Your task to perform on an android device: toggle javascript in the chrome app Image 0: 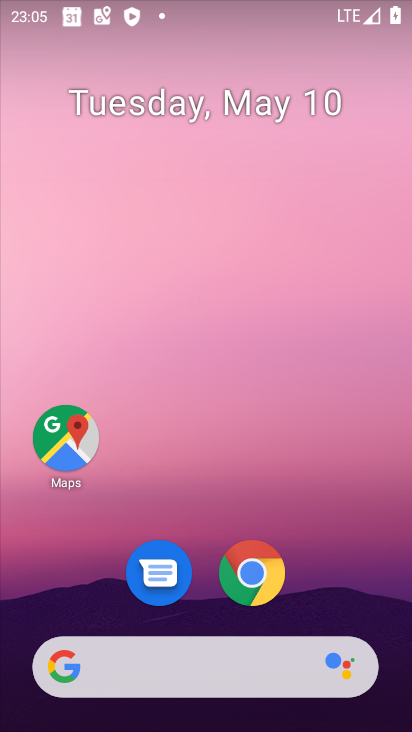
Step 0: click (252, 570)
Your task to perform on an android device: toggle javascript in the chrome app Image 1: 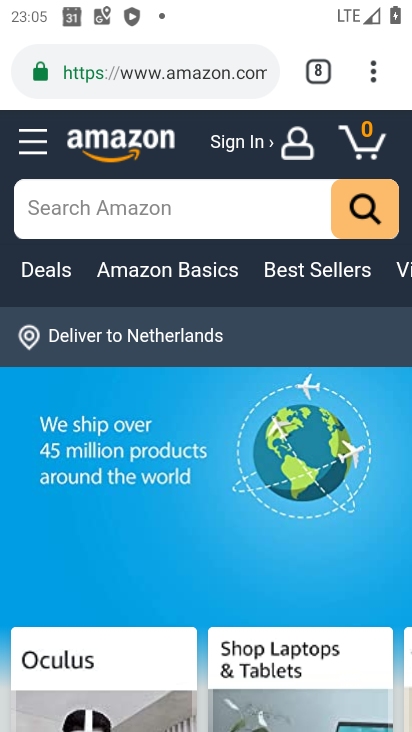
Step 1: click (372, 69)
Your task to perform on an android device: toggle javascript in the chrome app Image 2: 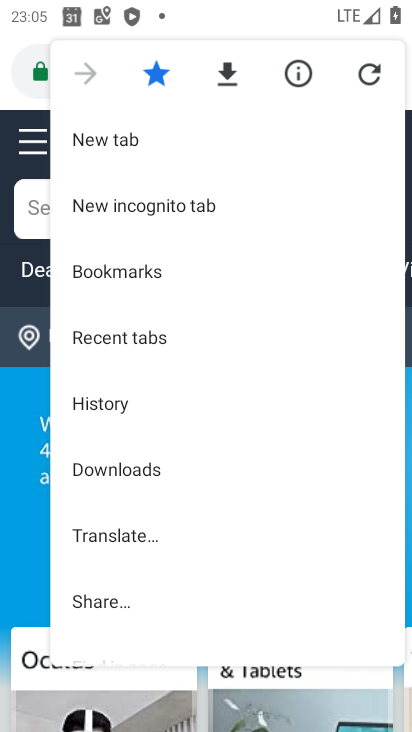
Step 2: drag from (220, 453) to (166, 112)
Your task to perform on an android device: toggle javascript in the chrome app Image 3: 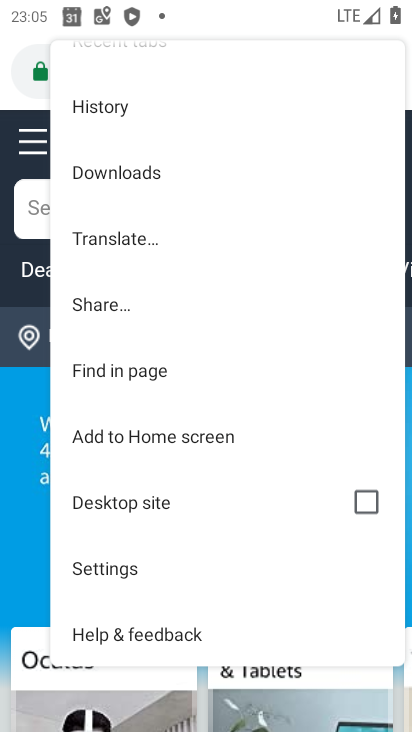
Step 3: drag from (194, 524) to (180, 142)
Your task to perform on an android device: toggle javascript in the chrome app Image 4: 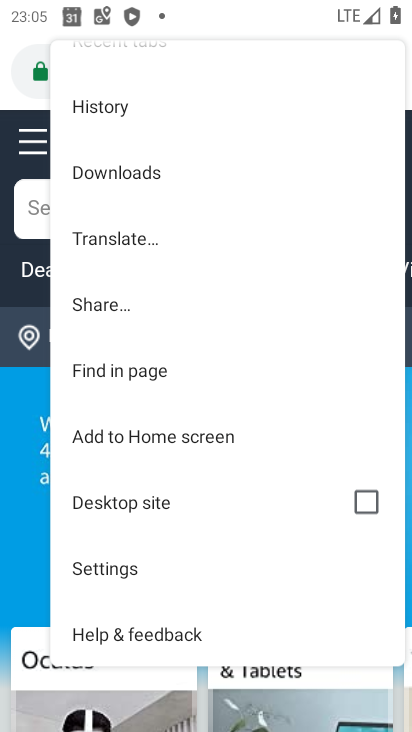
Step 4: click (108, 563)
Your task to perform on an android device: toggle javascript in the chrome app Image 5: 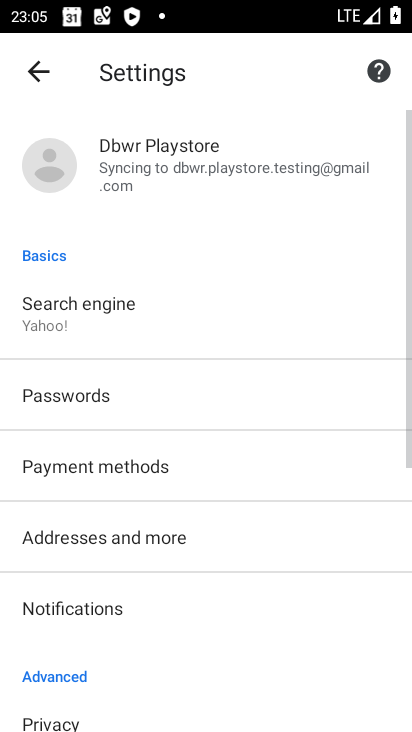
Step 5: drag from (226, 466) to (226, 156)
Your task to perform on an android device: toggle javascript in the chrome app Image 6: 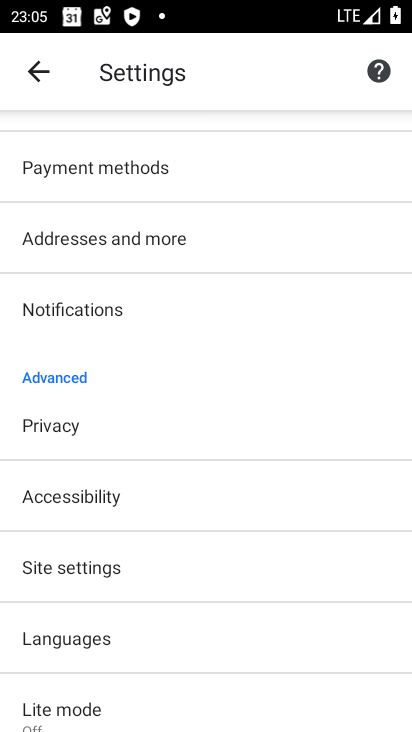
Step 6: drag from (198, 520) to (222, 188)
Your task to perform on an android device: toggle javascript in the chrome app Image 7: 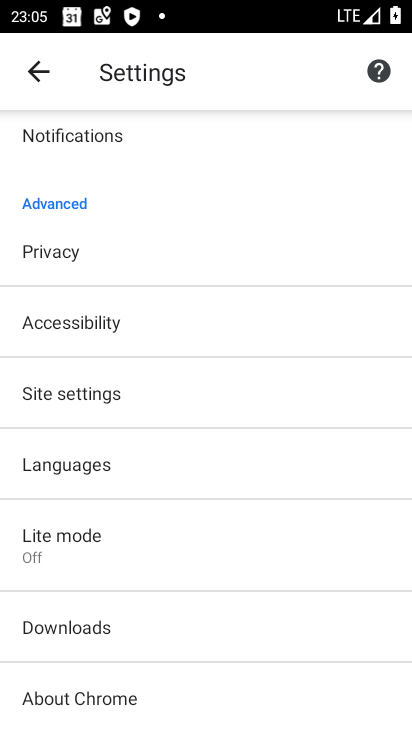
Step 7: click (105, 390)
Your task to perform on an android device: toggle javascript in the chrome app Image 8: 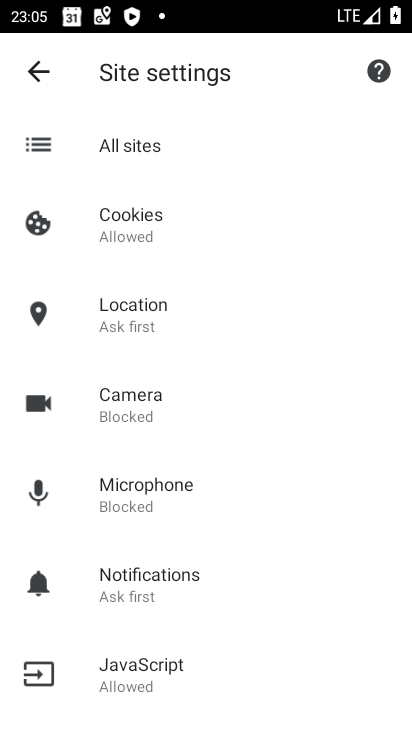
Step 8: click (147, 663)
Your task to perform on an android device: toggle javascript in the chrome app Image 9: 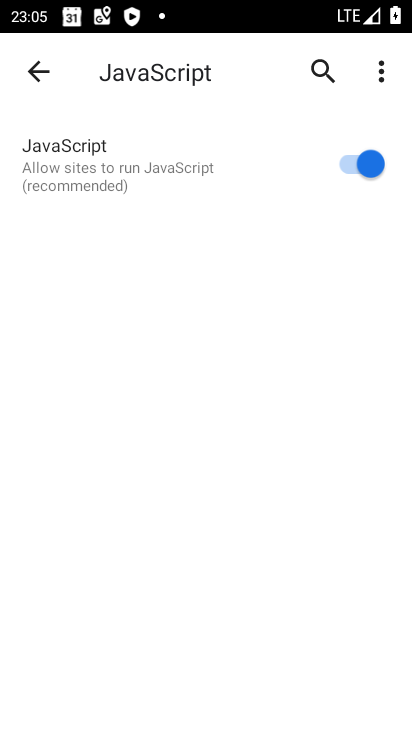
Step 9: click (371, 164)
Your task to perform on an android device: toggle javascript in the chrome app Image 10: 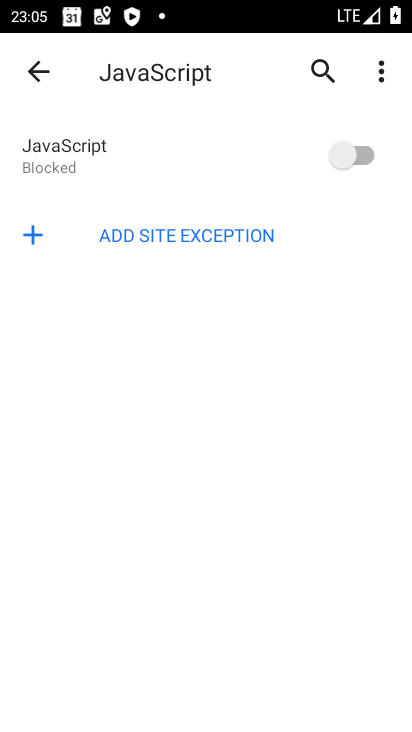
Step 10: task complete